Your task to perform on an android device: install app "Google Keep" Image 0: 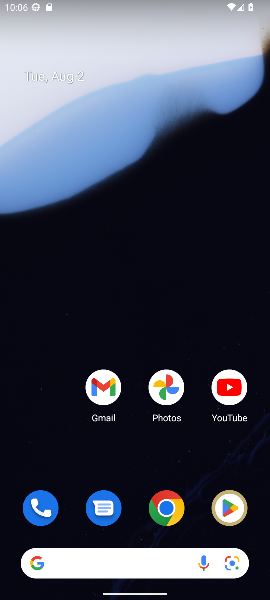
Step 0: click (225, 513)
Your task to perform on an android device: install app "Google Keep" Image 1: 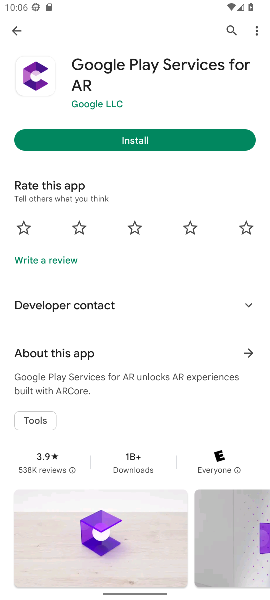
Step 1: click (229, 31)
Your task to perform on an android device: install app "Google Keep" Image 2: 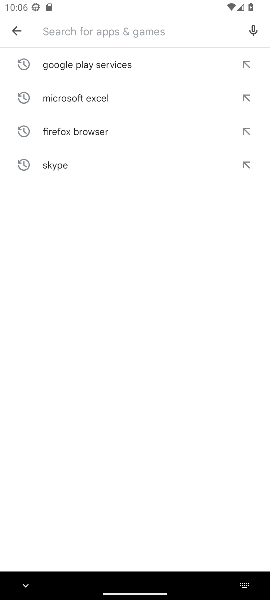
Step 2: type "Google Keep"
Your task to perform on an android device: install app "Google Keep" Image 3: 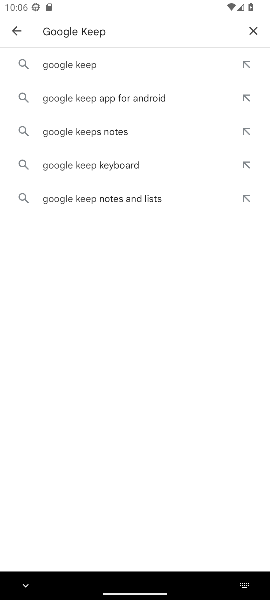
Step 3: click (90, 65)
Your task to perform on an android device: install app "Google Keep" Image 4: 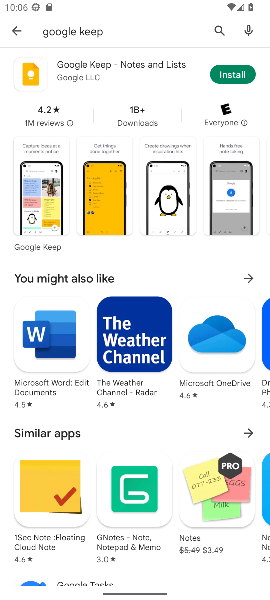
Step 4: click (229, 76)
Your task to perform on an android device: install app "Google Keep" Image 5: 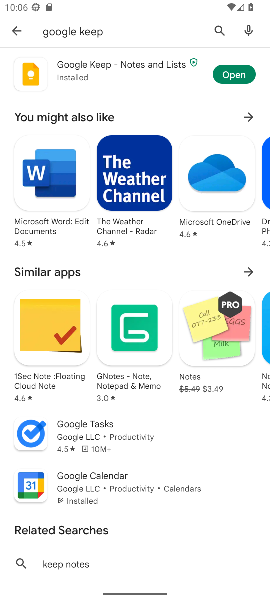
Step 5: task complete